Your task to perform on an android device: toggle show notifications on the lock screen Image 0: 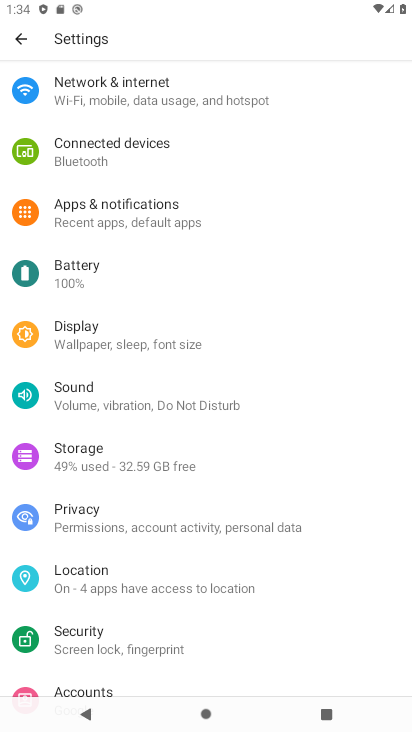
Step 0: press home button
Your task to perform on an android device: toggle show notifications on the lock screen Image 1: 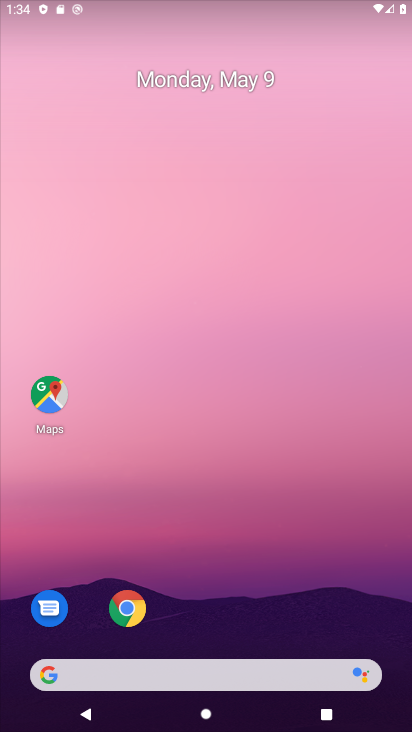
Step 1: drag from (275, 590) to (278, 103)
Your task to perform on an android device: toggle show notifications on the lock screen Image 2: 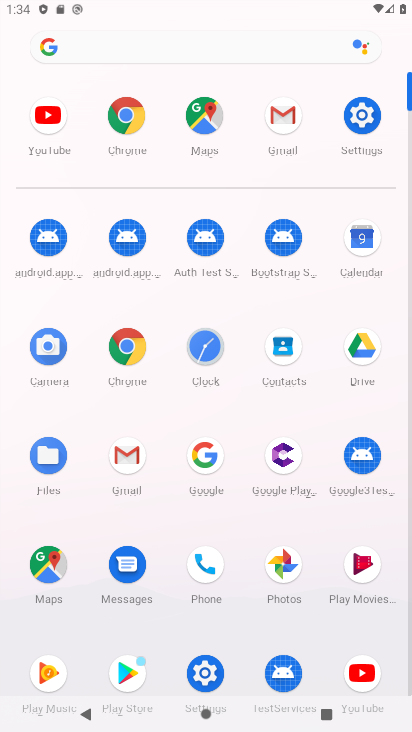
Step 2: click (360, 100)
Your task to perform on an android device: toggle show notifications on the lock screen Image 3: 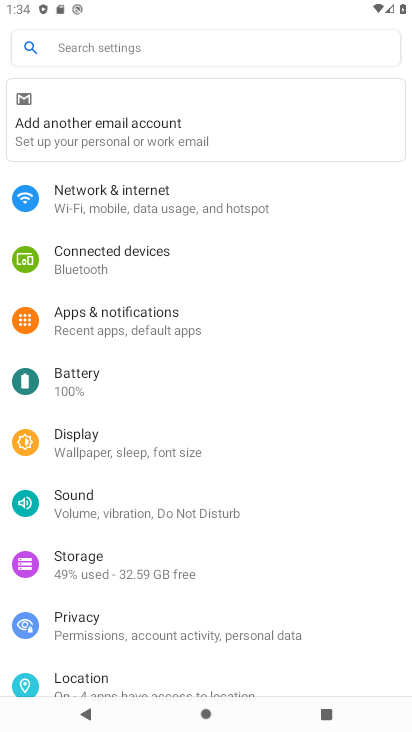
Step 3: click (110, 319)
Your task to perform on an android device: toggle show notifications on the lock screen Image 4: 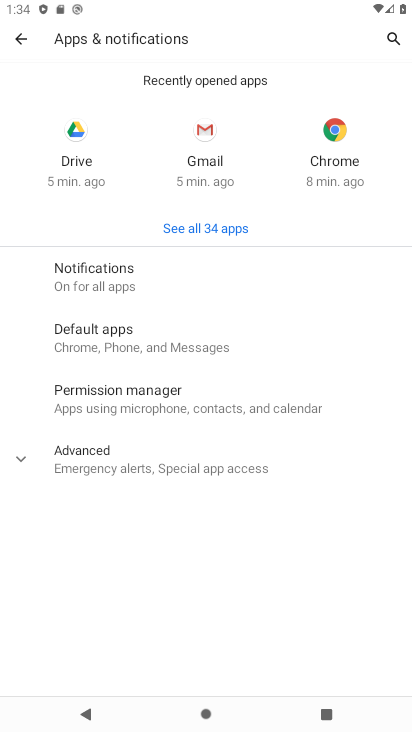
Step 4: click (124, 292)
Your task to perform on an android device: toggle show notifications on the lock screen Image 5: 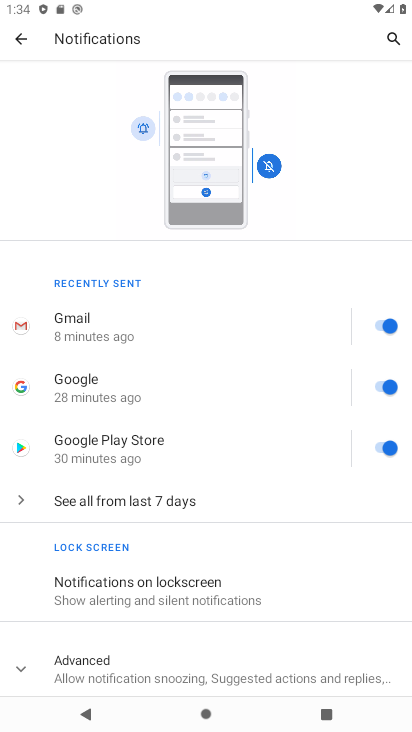
Step 5: drag from (215, 614) to (223, 549)
Your task to perform on an android device: toggle show notifications on the lock screen Image 6: 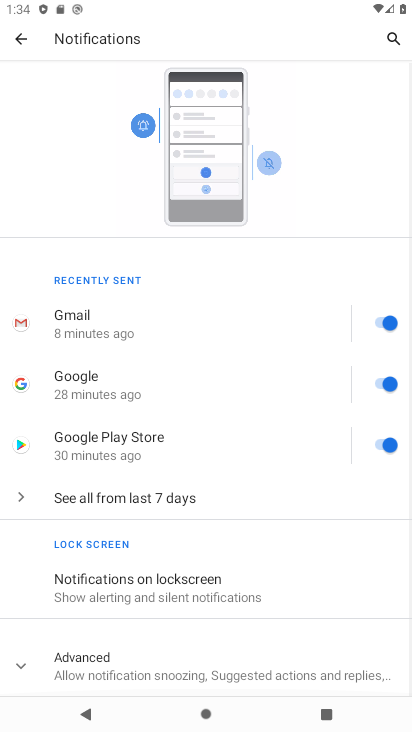
Step 6: click (175, 592)
Your task to perform on an android device: toggle show notifications on the lock screen Image 7: 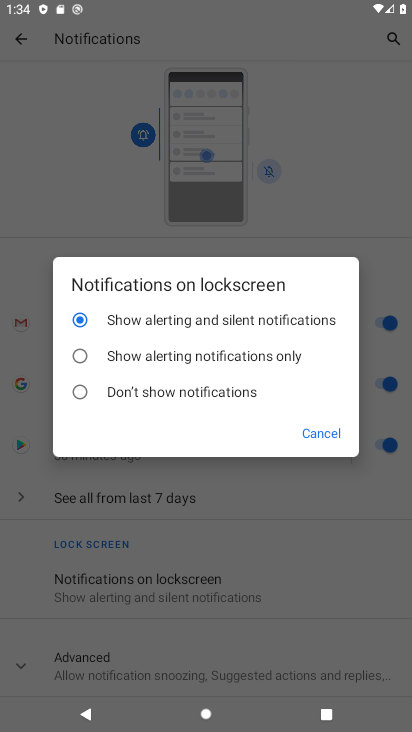
Step 7: click (233, 351)
Your task to perform on an android device: toggle show notifications on the lock screen Image 8: 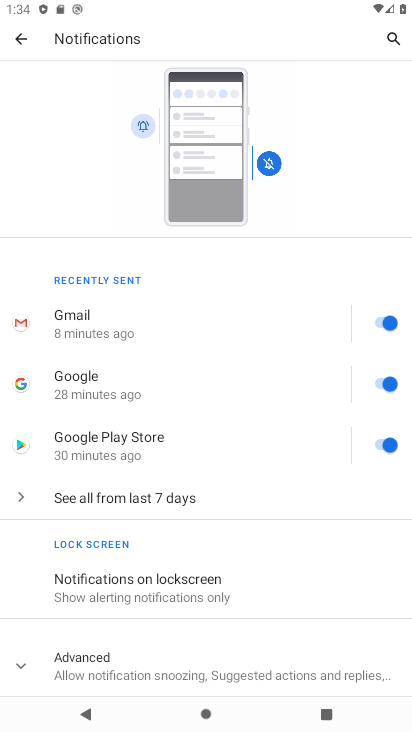
Step 8: task complete